Your task to perform on an android device: Open my contact list Image 0: 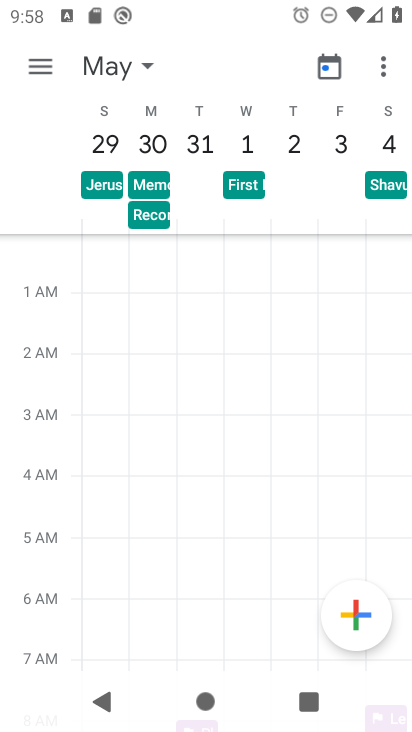
Step 0: press home button
Your task to perform on an android device: Open my contact list Image 1: 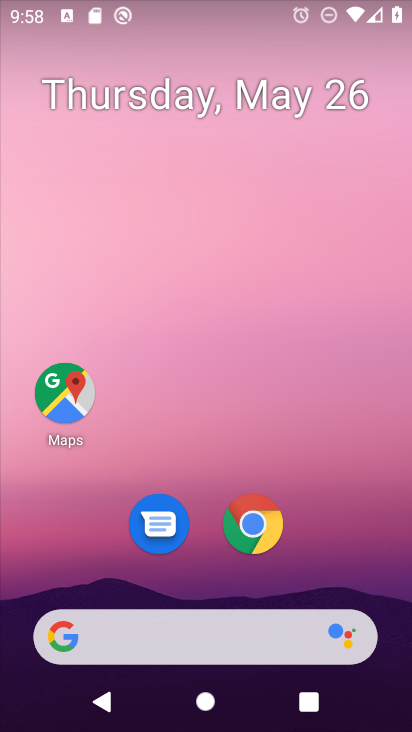
Step 1: drag from (275, 452) to (244, 3)
Your task to perform on an android device: Open my contact list Image 2: 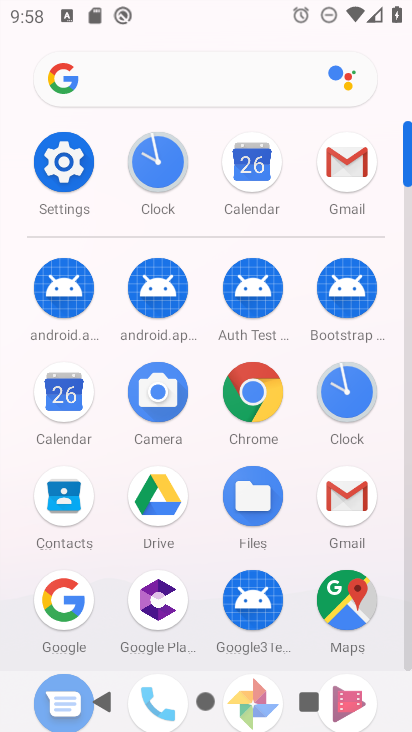
Step 2: click (64, 498)
Your task to perform on an android device: Open my contact list Image 3: 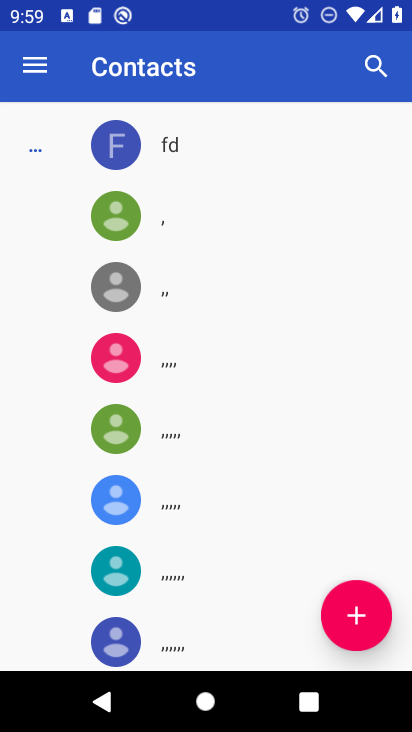
Step 3: task complete